Your task to perform on an android device: change keyboard looks Image 0: 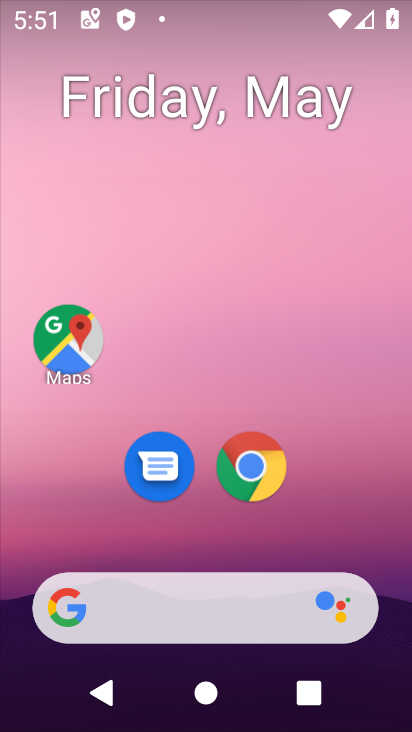
Step 0: drag from (363, 546) to (255, 75)
Your task to perform on an android device: change keyboard looks Image 1: 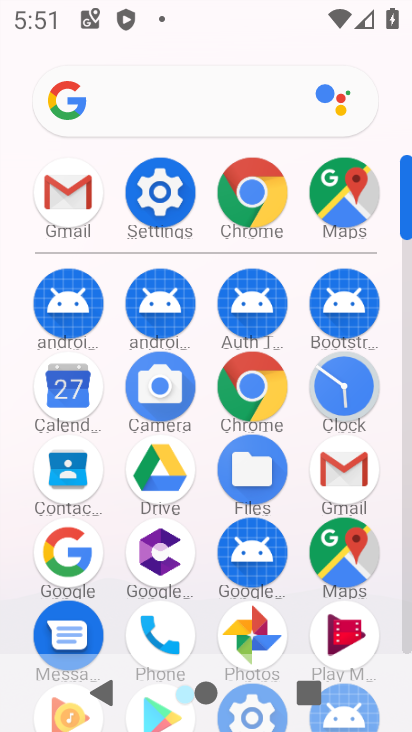
Step 1: drag from (9, 497) to (35, 222)
Your task to perform on an android device: change keyboard looks Image 2: 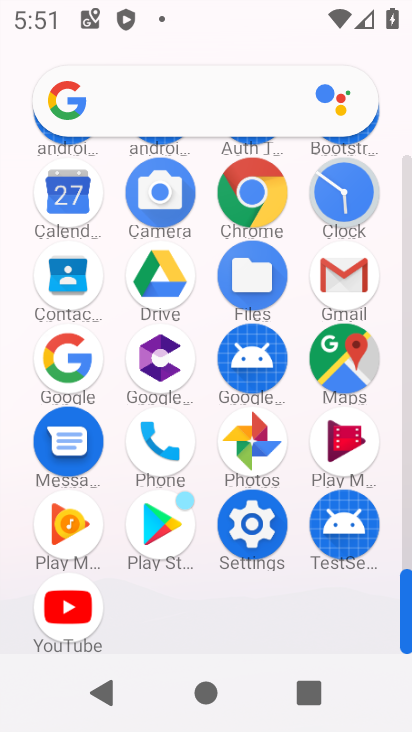
Step 2: click (254, 521)
Your task to perform on an android device: change keyboard looks Image 3: 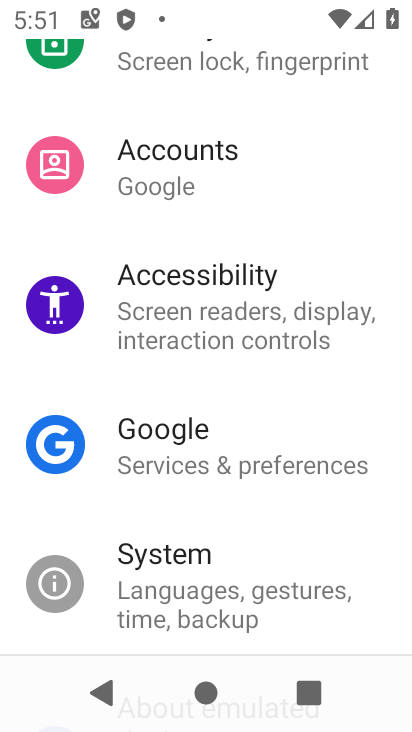
Step 3: drag from (323, 476) to (302, 155)
Your task to perform on an android device: change keyboard looks Image 4: 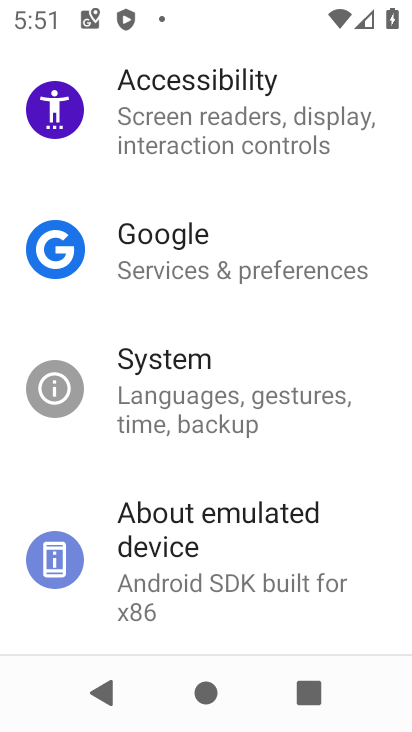
Step 4: drag from (305, 589) to (318, 153)
Your task to perform on an android device: change keyboard looks Image 5: 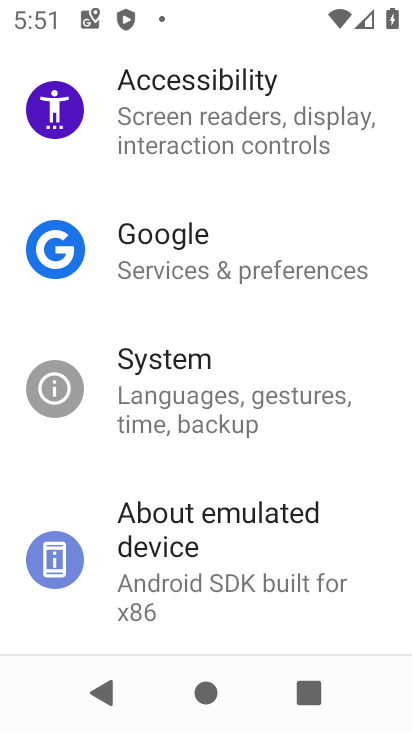
Step 5: click (190, 379)
Your task to perform on an android device: change keyboard looks Image 6: 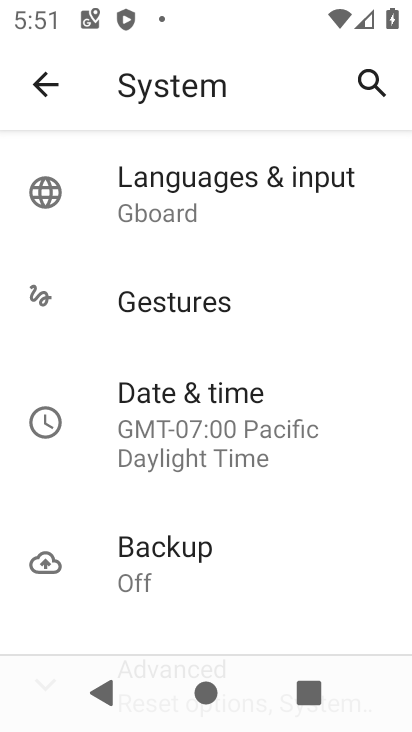
Step 6: click (211, 196)
Your task to perform on an android device: change keyboard looks Image 7: 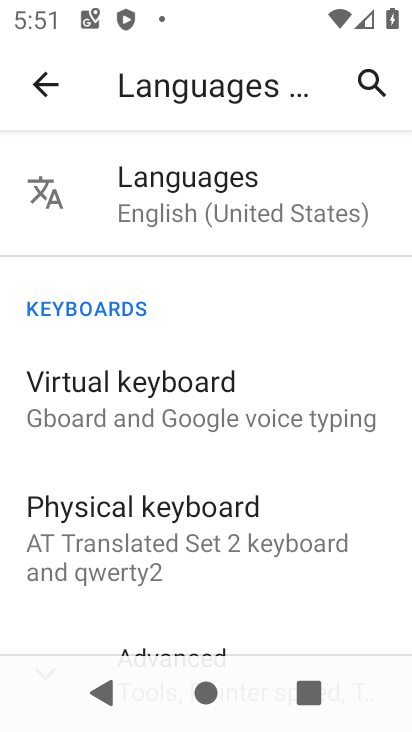
Step 7: click (200, 419)
Your task to perform on an android device: change keyboard looks Image 8: 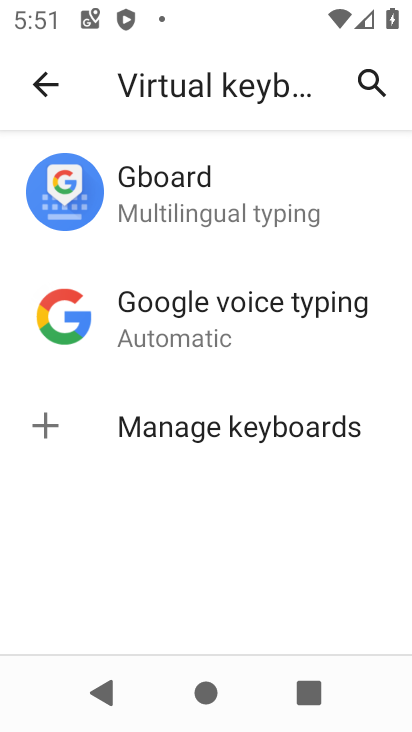
Step 8: click (244, 225)
Your task to perform on an android device: change keyboard looks Image 9: 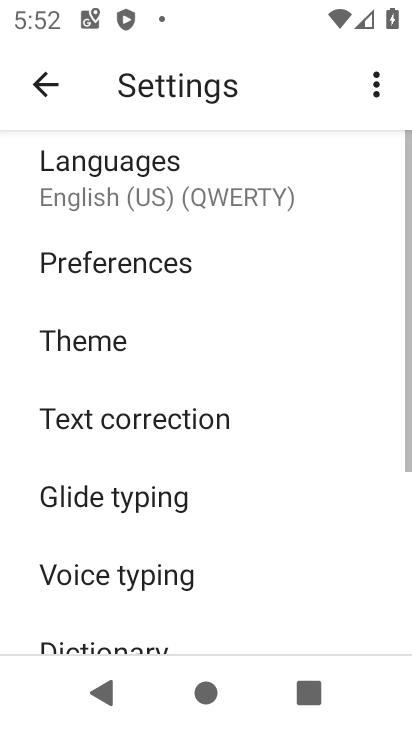
Step 9: click (176, 339)
Your task to perform on an android device: change keyboard looks Image 10: 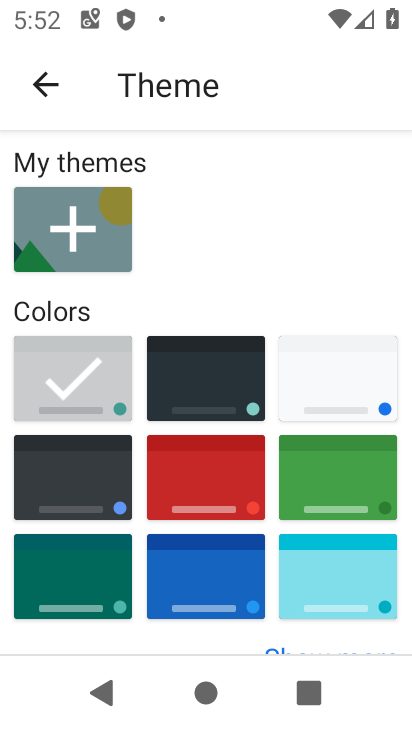
Step 10: click (125, 473)
Your task to perform on an android device: change keyboard looks Image 11: 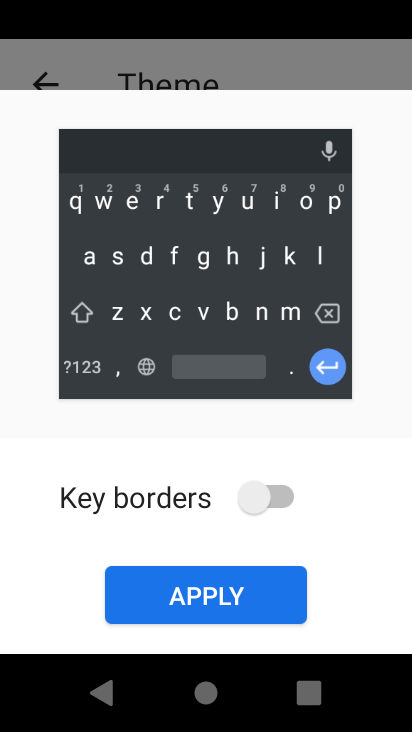
Step 11: click (234, 565)
Your task to perform on an android device: change keyboard looks Image 12: 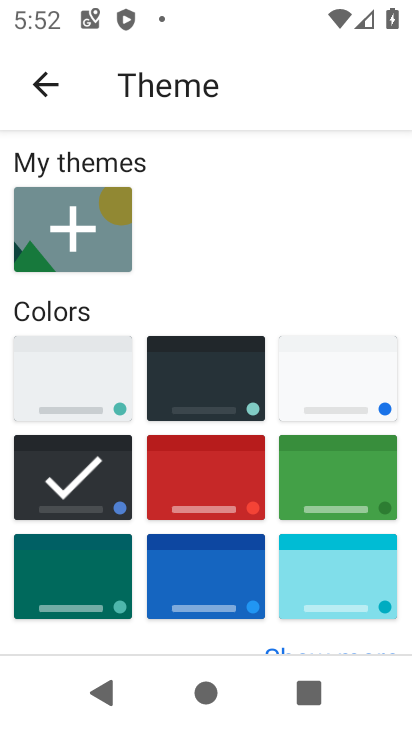
Step 12: task complete